Your task to perform on an android device: Show the shopping cart on costco. Search for usb-a to usb-b on costco, select the first entry, and add it to the cart. Image 0: 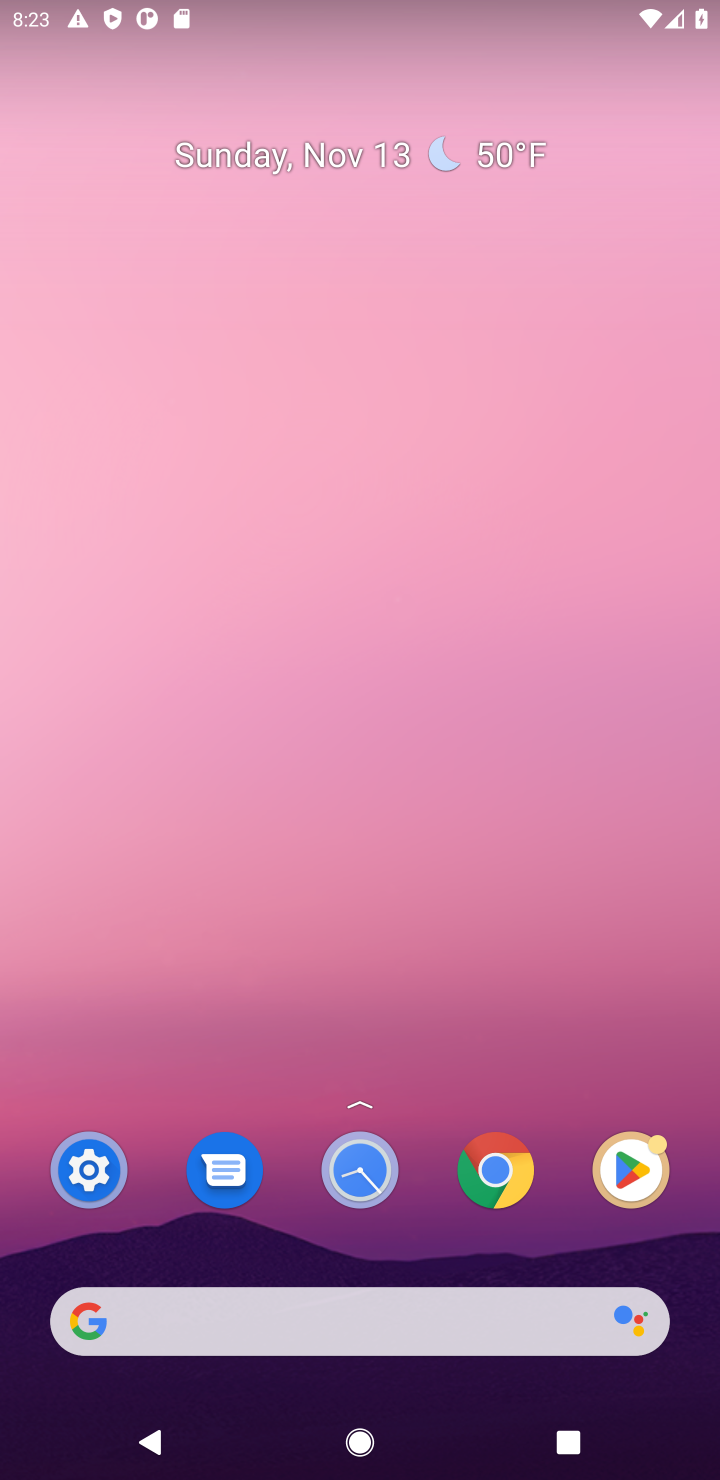
Step 0: click (330, 1320)
Your task to perform on an android device: Show the shopping cart on costco. Search for usb-a to usb-b on costco, select the first entry, and add it to the cart. Image 1: 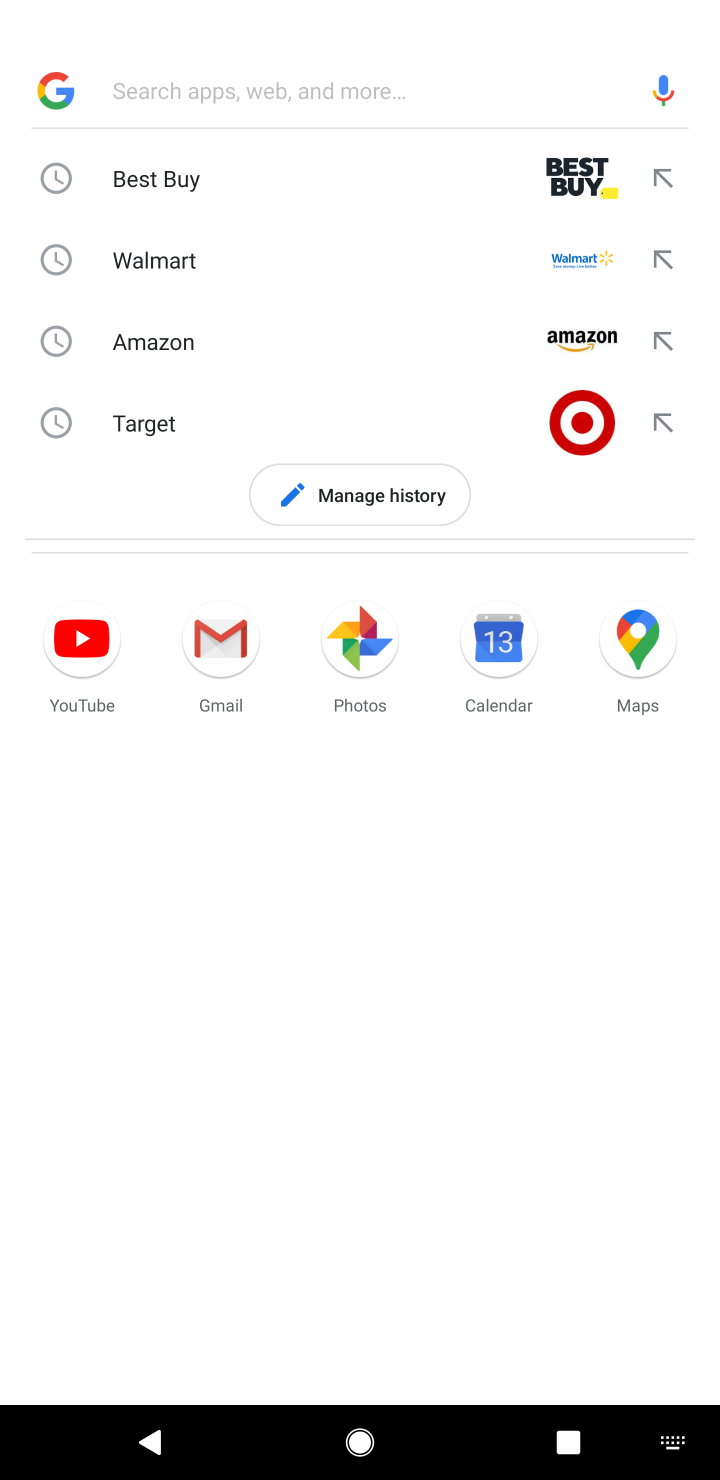
Step 1: type "costco"
Your task to perform on an android device: Show the shopping cart on costco. Search for usb-a to usb-b on costco, select the first entry, and add it to the cart. Image 2: 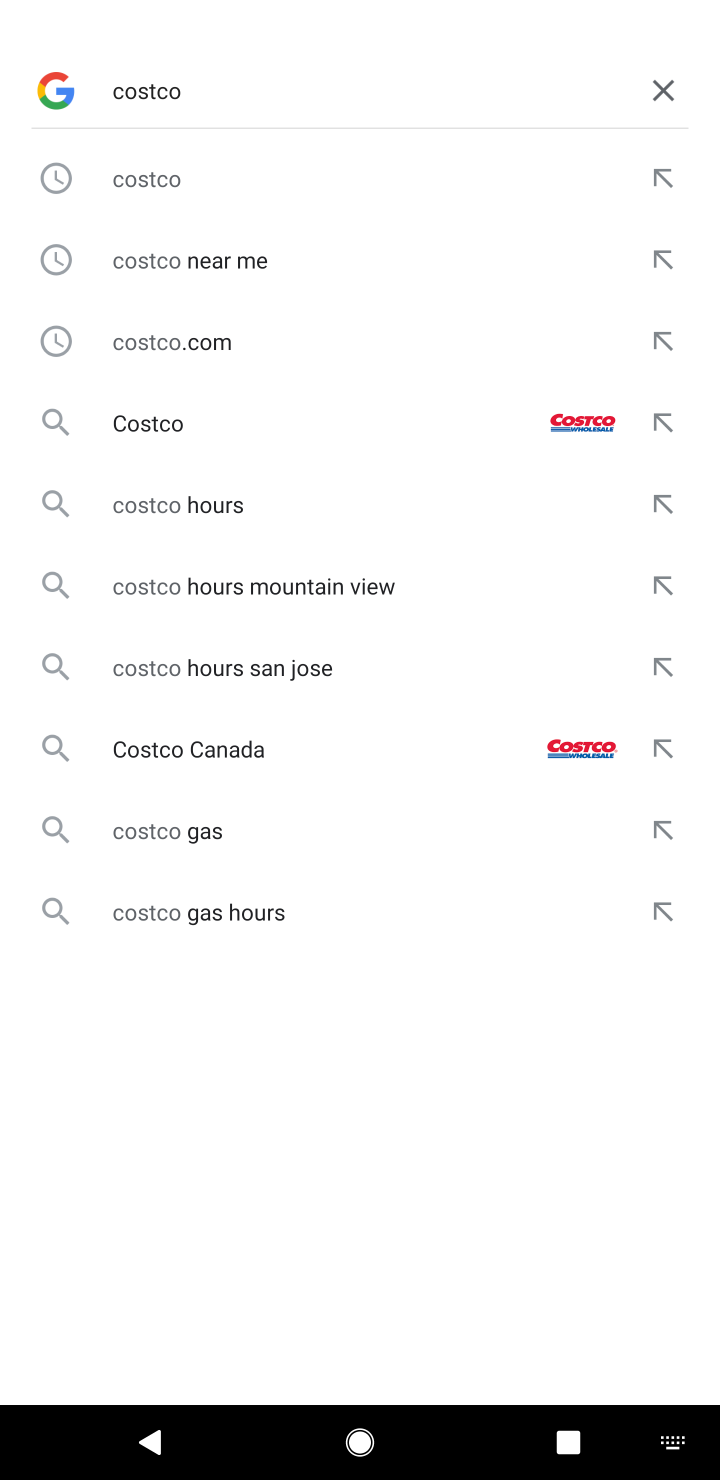
Step 2: click (234, 416)
Your task to perform on an android device: Show the shopping cart on costco. Search for usb-a to usb-b on costco, select the first entry, and add it to the cart. Image 3: 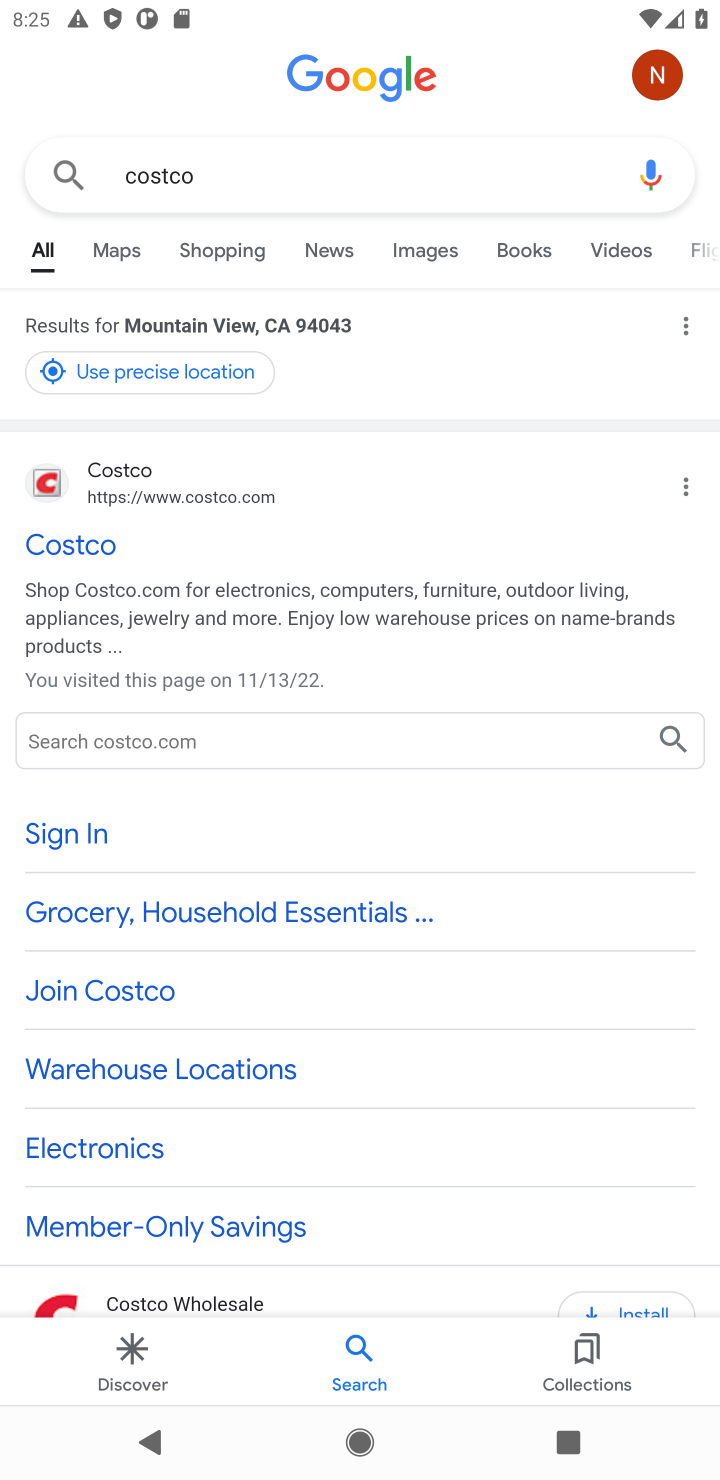
Step 3: click (109, 525)
Your task to perform on an android device: Show the shopping cart on costco. Search for usb-a to usb-b on costco, select the first entry, and add it to the cart. Image 4: 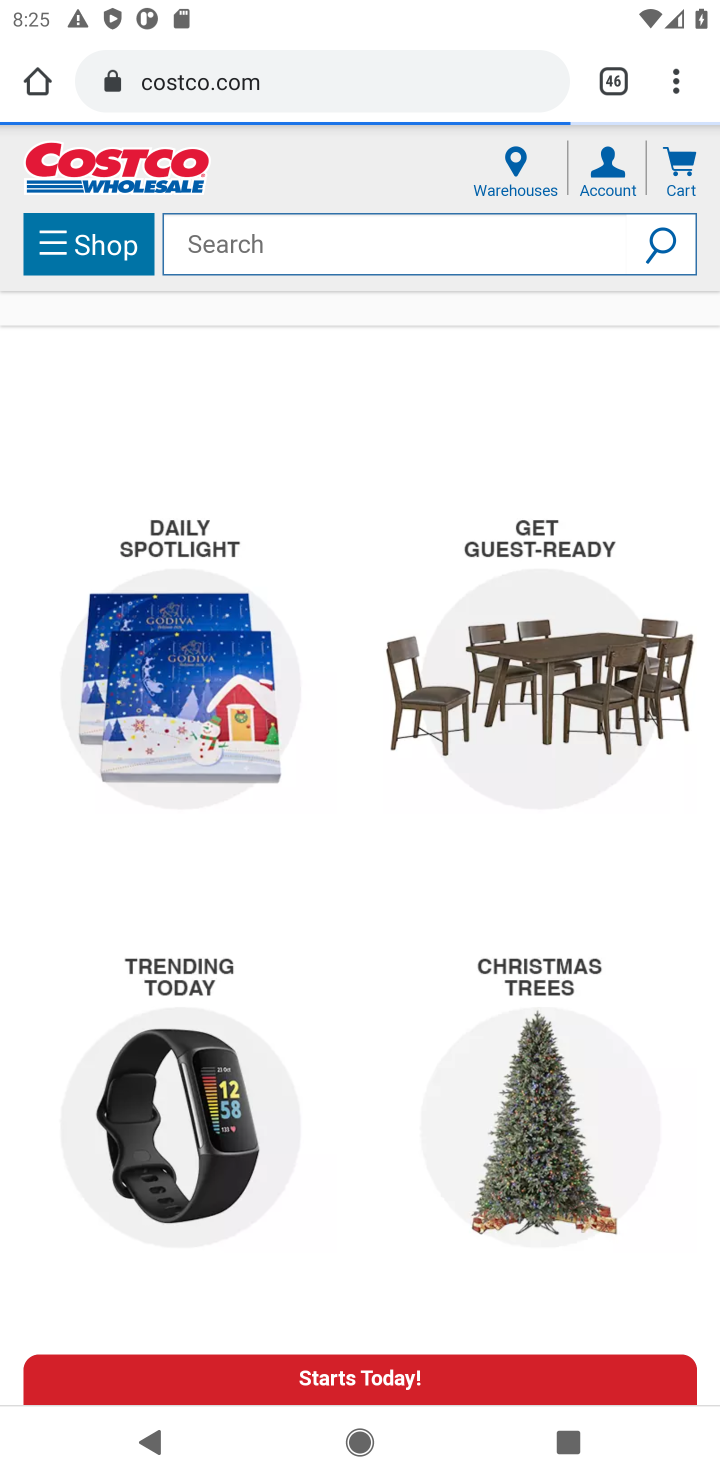
Step 4: task complete